Your task to perform on an android device: choose inbox layout in the gmail app Image 0: 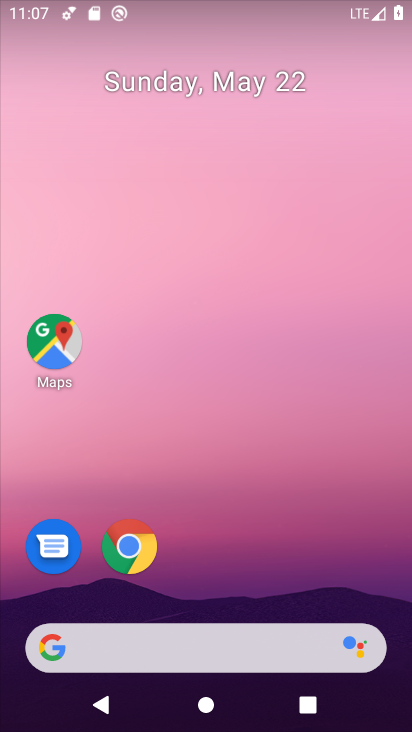
Step 0: drag from (246, 615) to (265, 27)
Your task to perform on an android device: choose inbox layout in the gmail app Image 1: 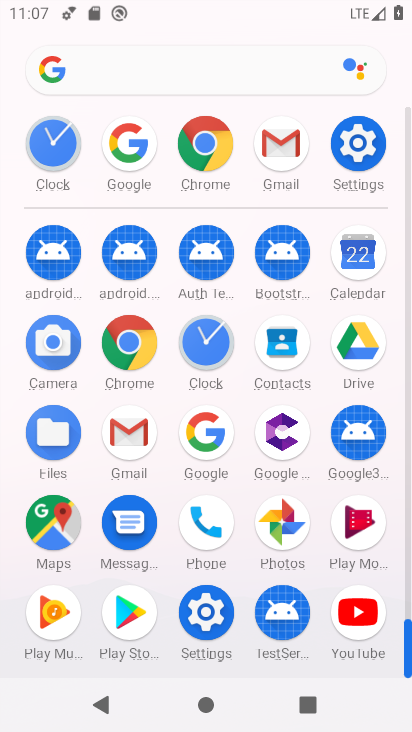
Step 1: drag from (174, 649) to (226, 32)
Your task to perform on an android device: choose inbox layout in the gmail app Image 2: 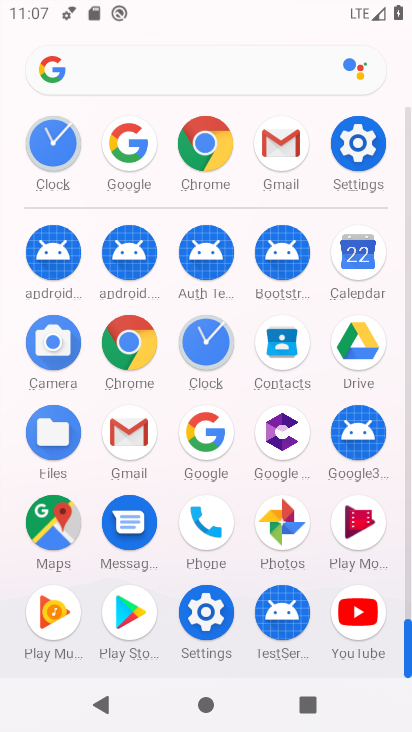
Step 2: click (138, 443)
Your task to perform on an android device: choose inbox layout in the gmail app Image 3: 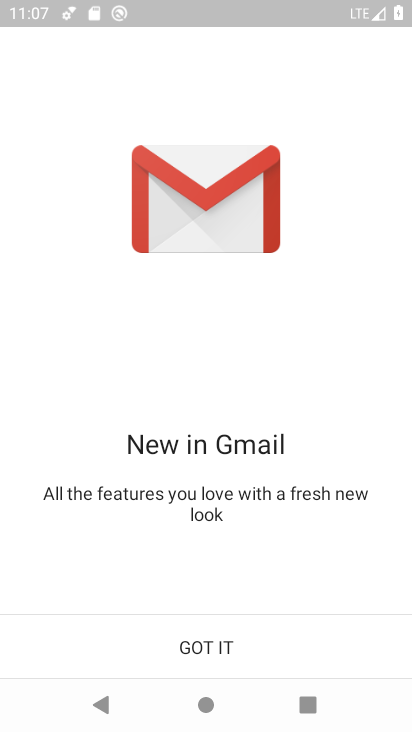
Step 3: click (247, 649)
Your task to perform on an android device: choose inbox layout in the gmail app Image 4: 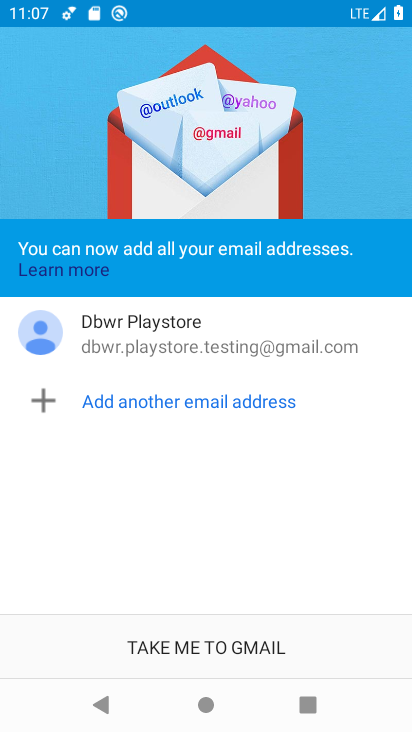
Step 4: click (271, 640)
Your task to perform on an android device: choose inbox layout in the gmail app Image 5: 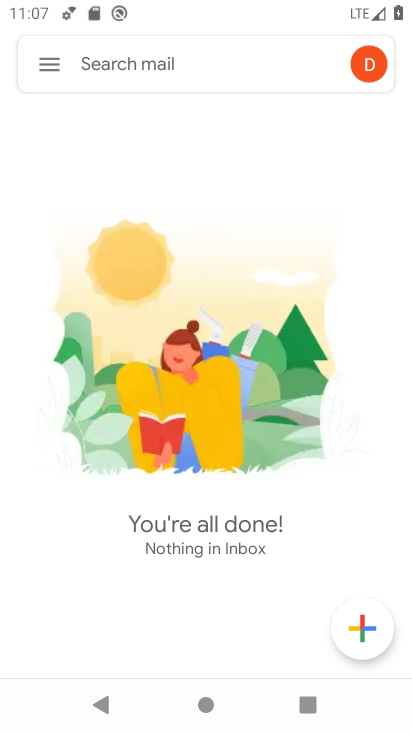
Step 5: click (49, 72)
Your task to perform on an android device: choose inbox layout in the gmail app Image 6: 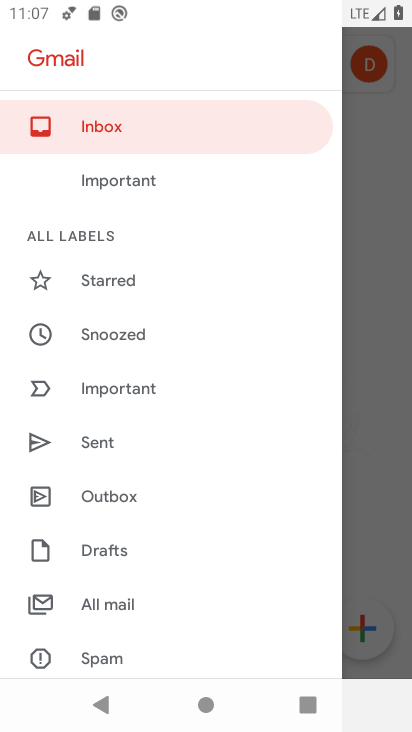
Step 6: task complete